Your task to perform on an android device: Open Google Maps and go to "Timeline" Image 0: 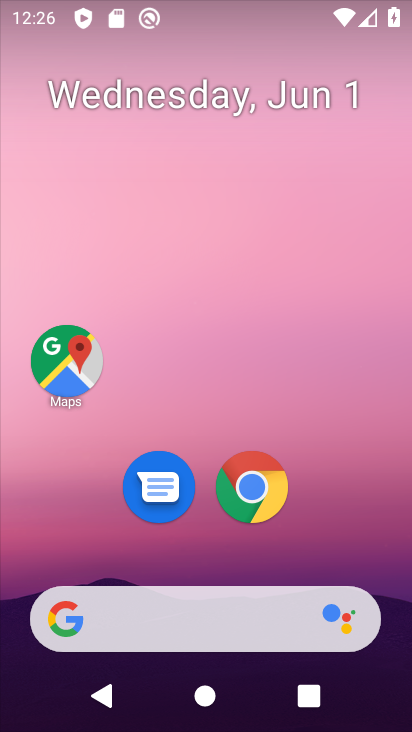
Step 0: click (52, 348)
Your task to perform on an android device: Open Google Maps and go to "Timeline" Image 1: 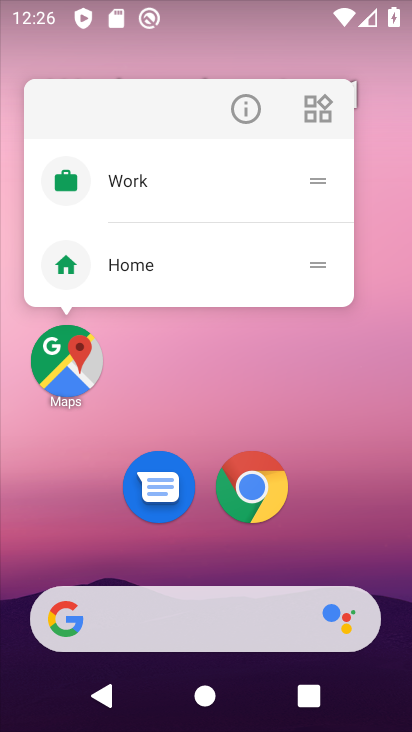
Step 1: click (55, 351)
Your task to perform on an android device: Open Google Maps and go to "Timeline" Image 2: 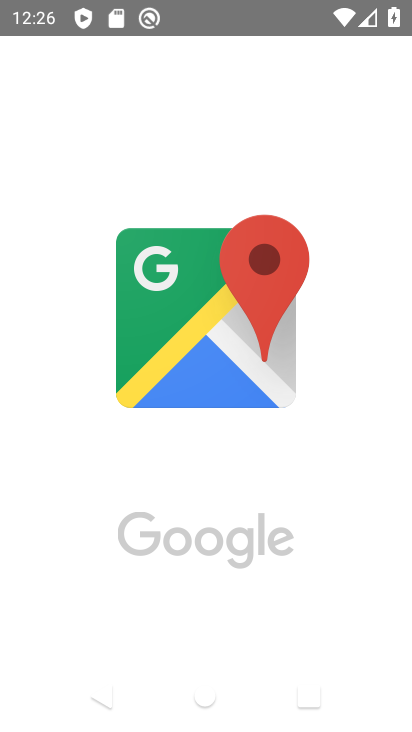
Step 2: click (71, 339)
Your task to perform on an android device: Open Google Maps and go to "Timeline" Image 3: 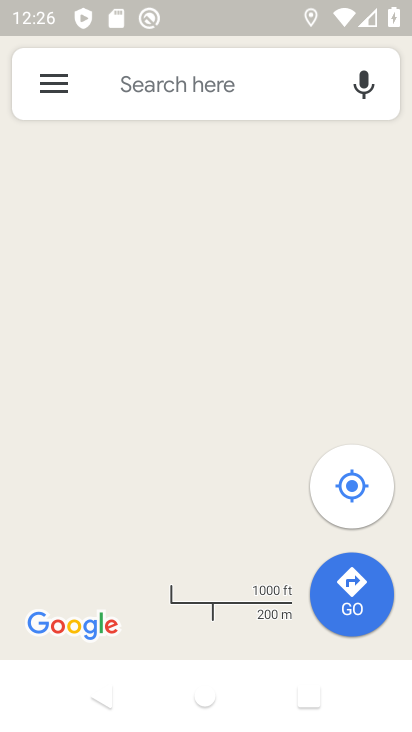
Step 3: click (45, 87)
Your task to perform on an android device: Open Google Maps and go to "Timeline" Image 4: 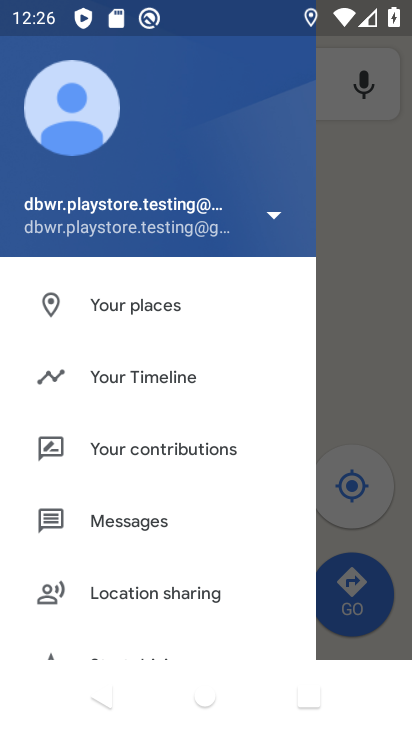
Step 4: click (153, 376)
Your task to perform on an android device: Open Google Maps and go to "Timeline" Image 5: 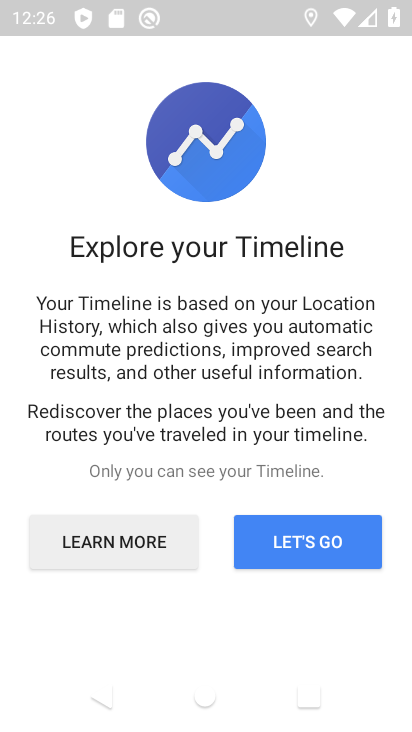
Step 5: click (270, 541)
Your task to perform on an android device: Open Google Maps and go to "Timeline" Image 6: 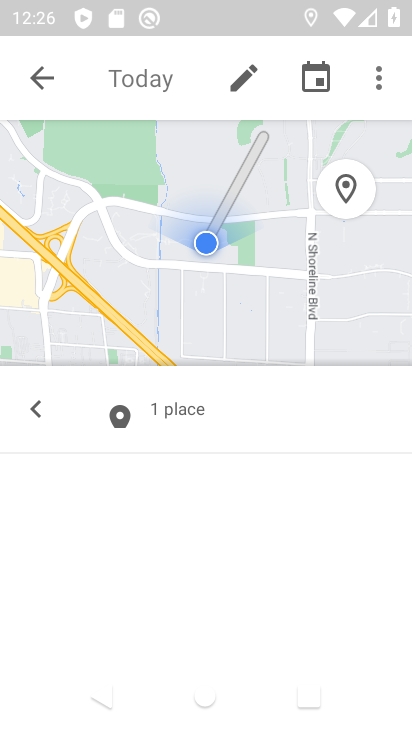
Step 6: task complete